Your task to perform on an android device: manage bookmarks in the chrome app Image 0: 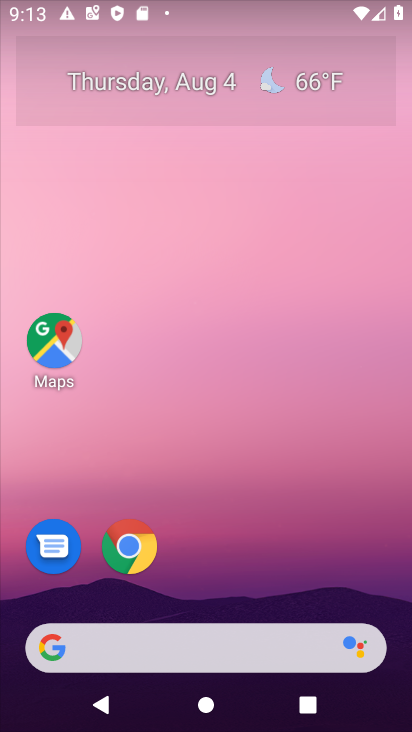
Step 0: drag from (261, 589) to (406, 141)
Your task to perform on an android device: manage bookmarks in the chrome app Image 1: 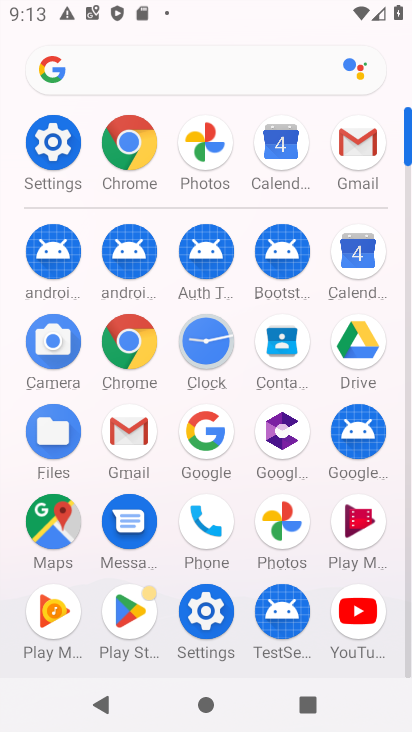
Step 1: click (126, 138)
Your task to perform on an android device: manage bookmarks in the chrome app Image 2: 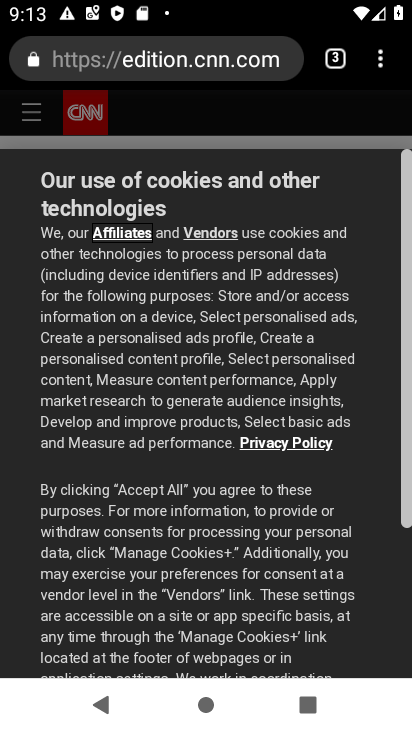
Step 2: task complete